Your task to perform on an android device: Open calendar and show me the second week of next month Image 0: 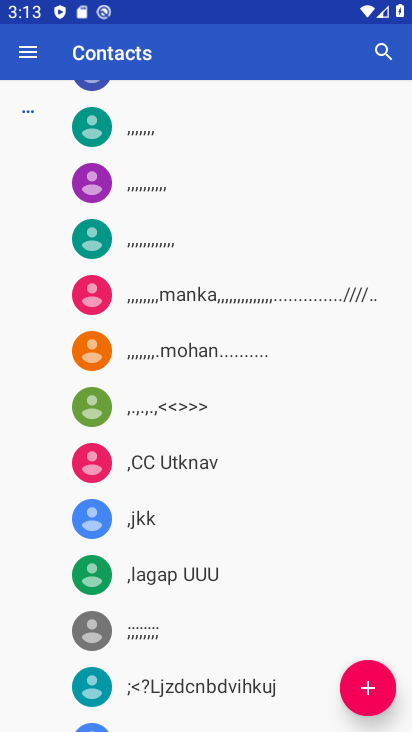
Step 0: press home button
Your task to perform on an android device: Open calendar and show me the second week of next month Image 1: 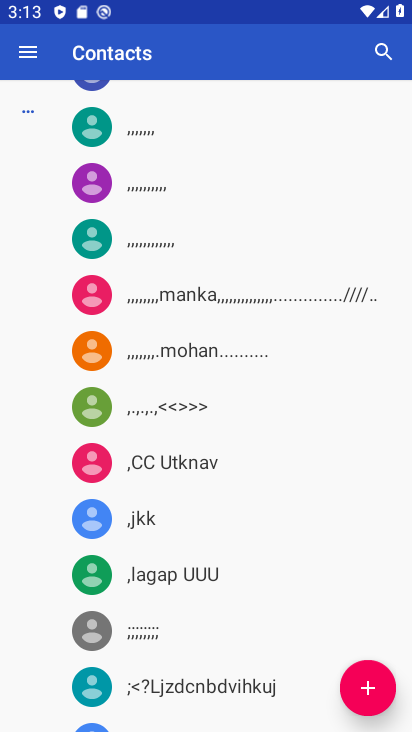
Step 1: press home button
Your task to perform on an android device: Open calendar and show me the second week of next month Image 2: 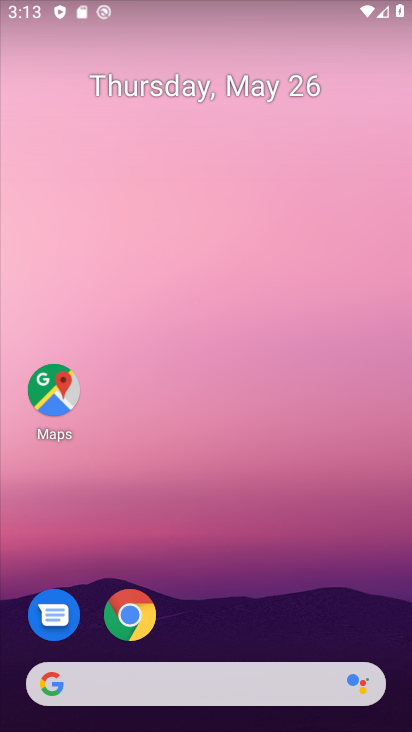
Step 2: drag from (304, 637) to (275, 159)
Your task to perform on an android device: Open calendar and show me the second week of next month Image 3: 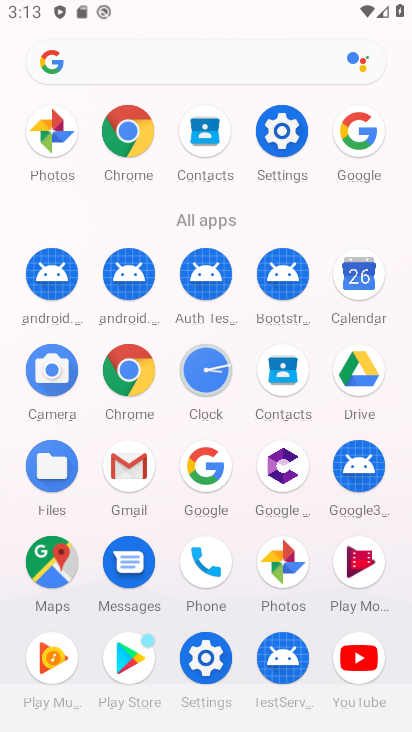
Step 3: click (351, 272)
Your task to perform on an android device: Open calendar and show me the second week of next month Image 4: 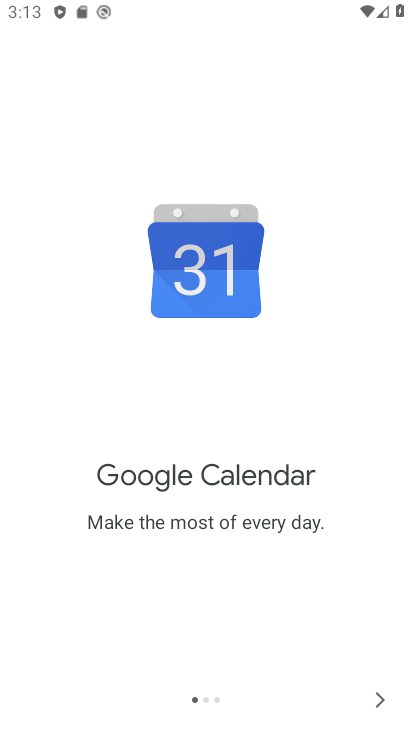
Step 4: click (376, 695)
Your task to perform on an android device: Open calendar and show me the second week of next month Image 5: 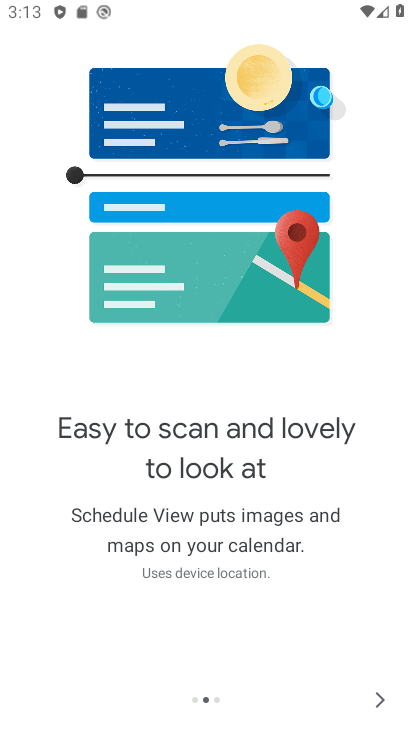
Step 5: click (376, 694)
Your task to perform on an android device: Open calendar and show me the second week of next month Image 6: 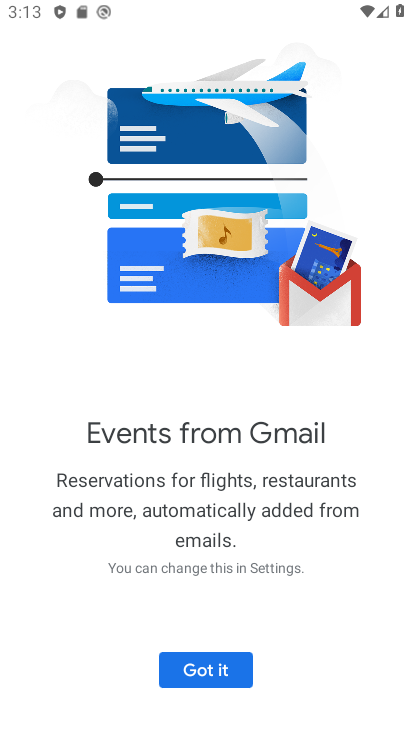
Step 6: click (176, 659)
Your task to perform on an android device: Open calendar and show me the second week of next month Image 7: 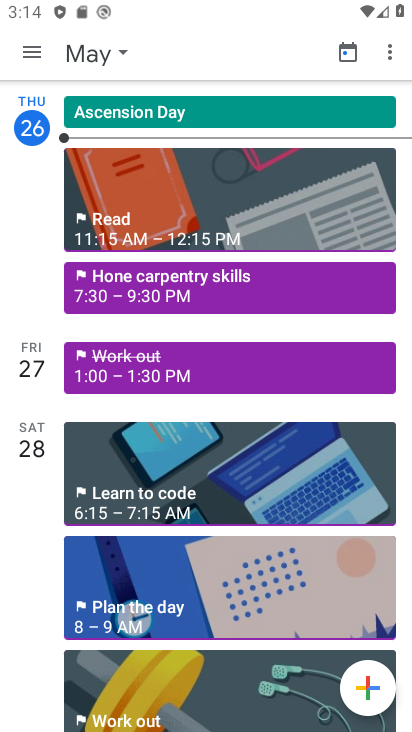
Step 7: click (28, 39)
Your task to perform on an android device: Open calendar and show me the second week of next month Image 8: 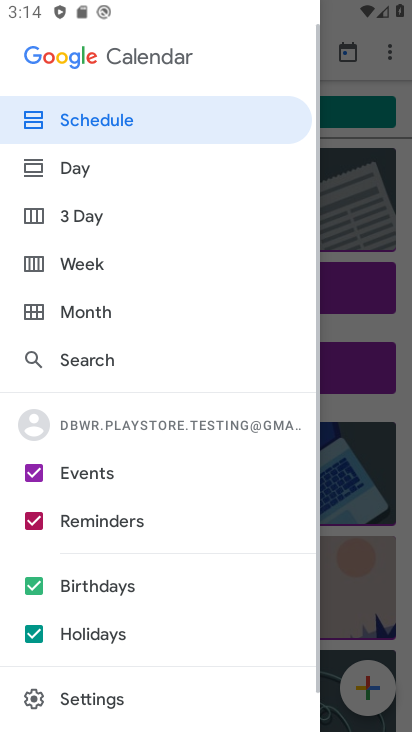
Step 8: click (89, 256)
Your task to perform on an android device: Open calendar and show me the second week of next month Image 9: 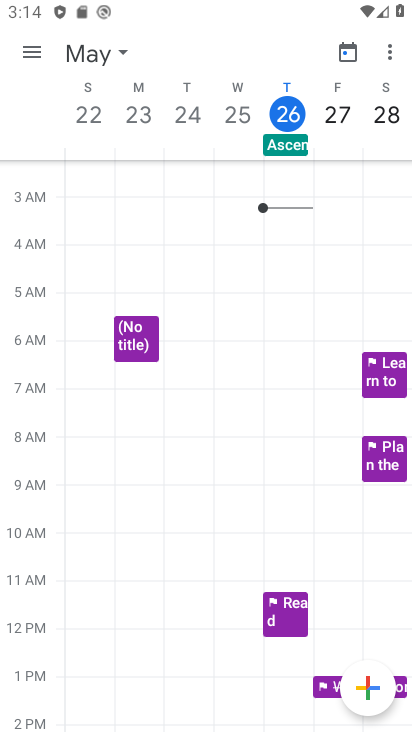
Step 9: click (104, 59)
Your task to perform on an android device: Open calendar and show me the second week of next month Image 10: 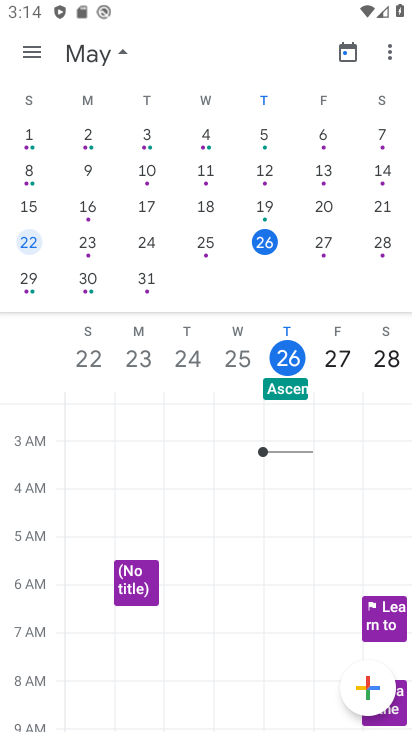
Step 10: drag from (320, 241) to (1, 214)
Your task to perform on an android device: Open calendar and show me the second week of next month Image 11: 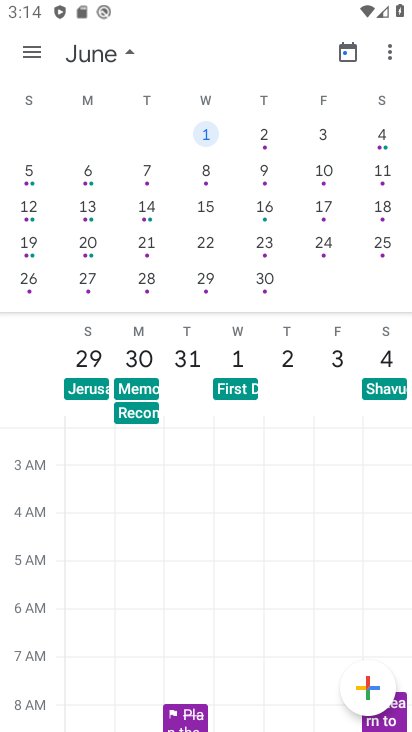
Step 11: click (90, 211)
Your task to perform on an android device: Open calendar and show me the second week of next month Image 12: 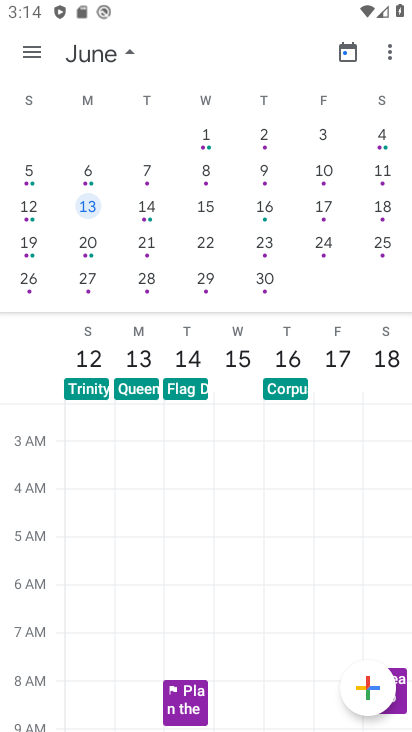
Step 12: task complete